Your task to perform on an android device: remove spam from my inbox in the gmail app Image 0: 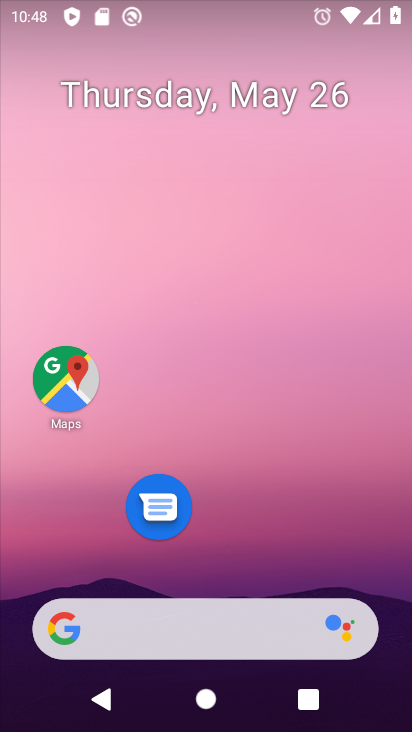
Step 0: drag from (259, 686) to (202, 141)
Your task to perform on an android device: remove spam from my inbox in the gmail app Image 1: 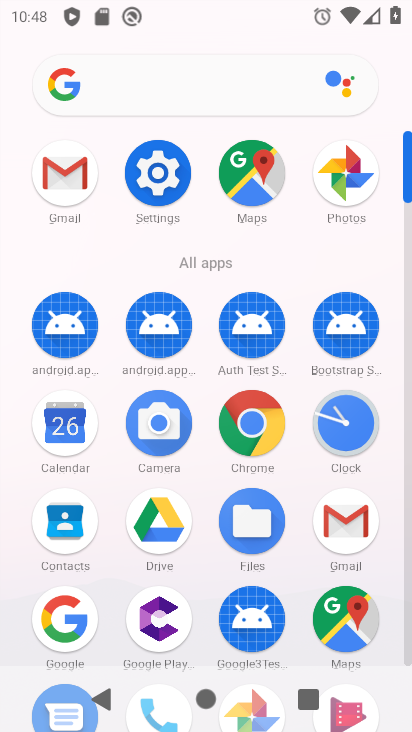
Step 1: click (345, 506)
Your task to perform on an android device: remove spam from my inbox in the gmail app Image 2: 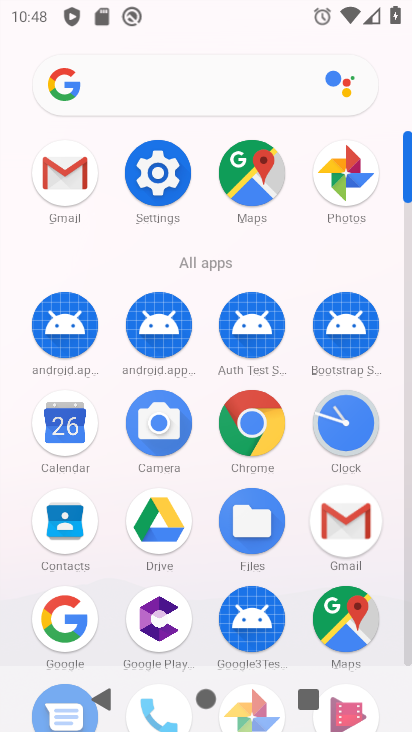
Step 2: click (346, 522)
Your task to perform on an android device: remove spam from my inbox in the gmail app Image 3: 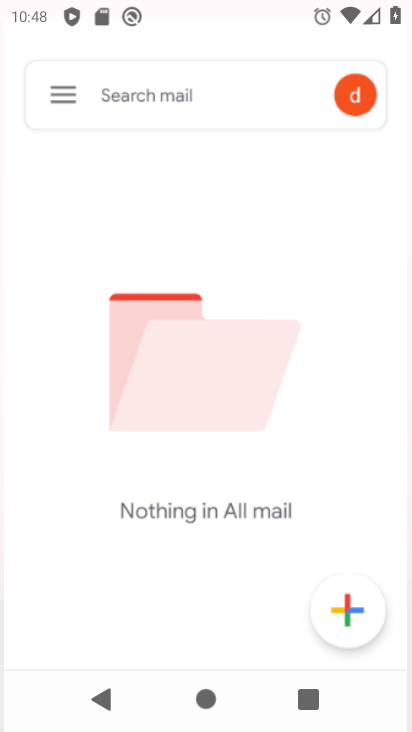
Step 3: click (346, 522)
Your task to perform on an android device: remove spam from my inbox in the gmail app Image 4: 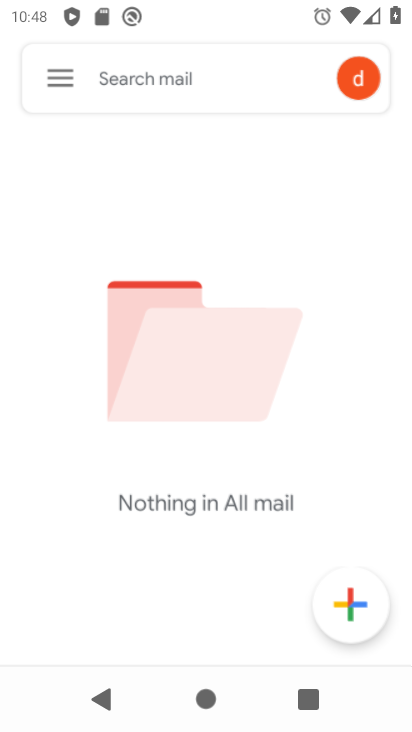
Step 4: click (346, 522)
Your task to perform on an android device: remove spam from my inbox in the gmail app Image 5: 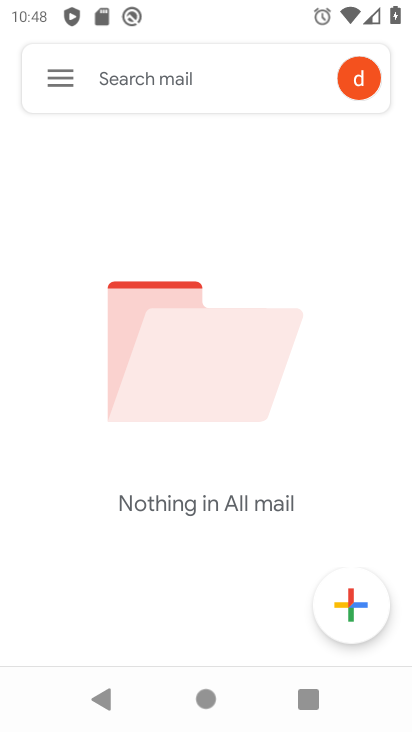
Step 5: press back button
Your task to perform on an android device: remove spam from my inbox in the gmail app Image 6: 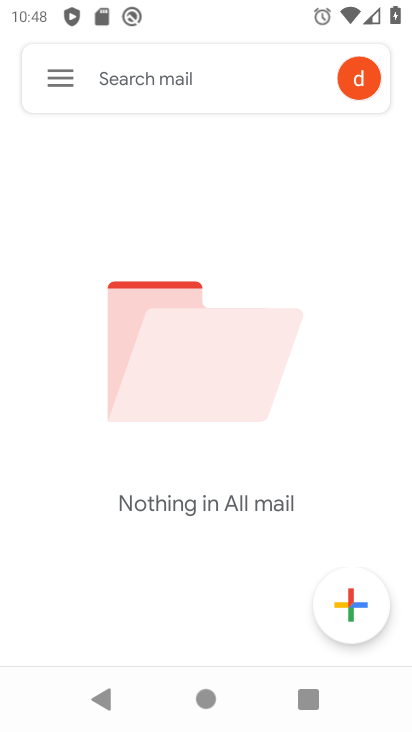
Step 6: press back button
Your task to perform on an android device: remove spam from my inbox in the gmail app Image 7: 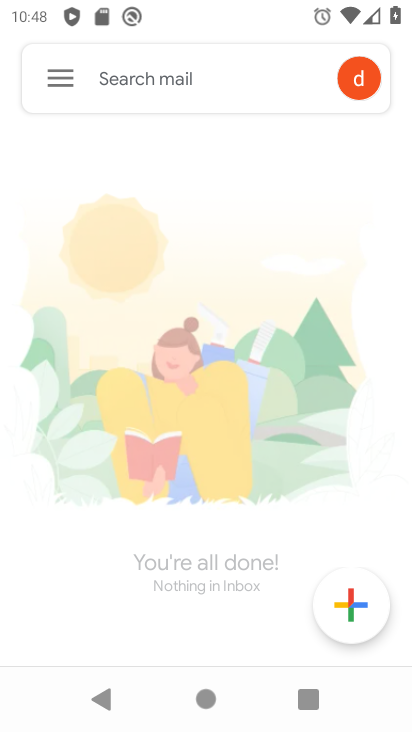
Step 7: press back button
Your task to perform on an android device: remove spam from my inbox in the gmail app Image 8: 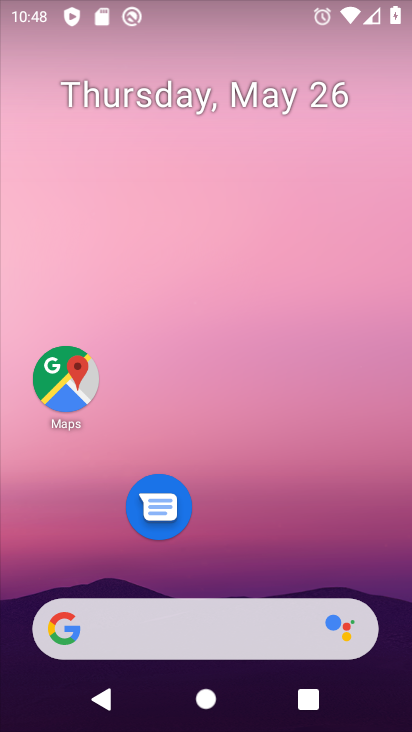
Step 8: drag from (250, 539) to (258, 0)
Your task to perform on an android device: remove spam from my inbox in the gmail app Image 9: 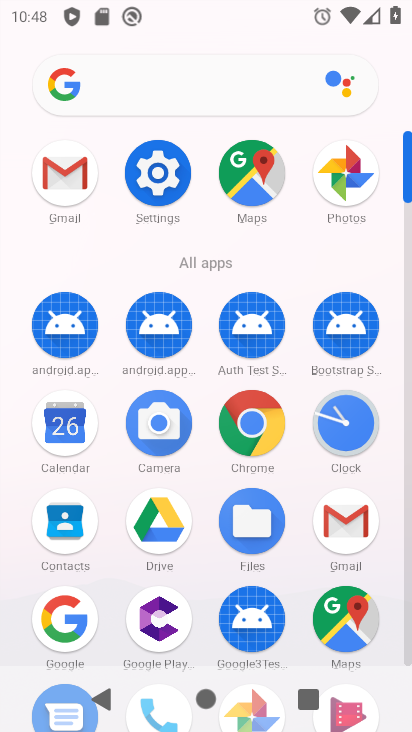
Step 9: click (365, 512)
Your task to perform on an android device: remove spam from my inbox in the gmail app Image 10: 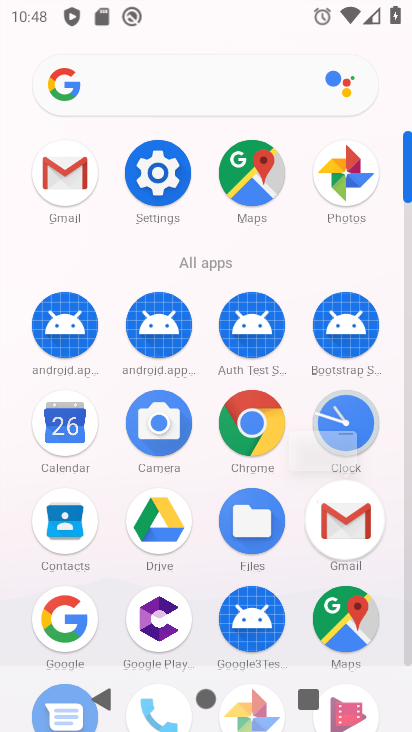
Step 10: click (338, 509)
Your task to perform on an android device: remove spam from my inbox in the gmail app Image 11: 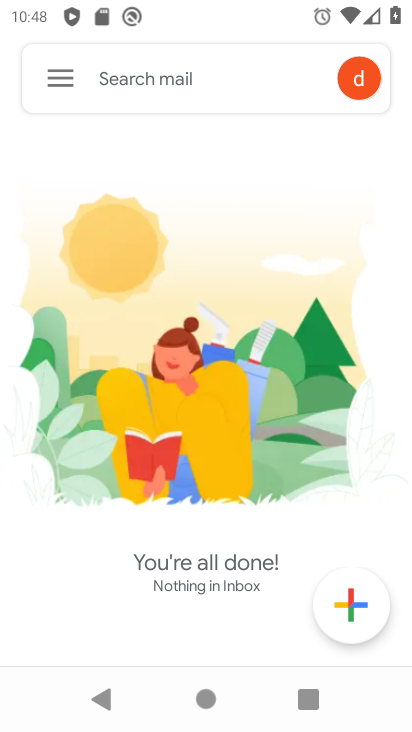
Step 11: click (335, 519)
Your task to perform on an android device: remove spam from my inbox in the gmail app Image 12: 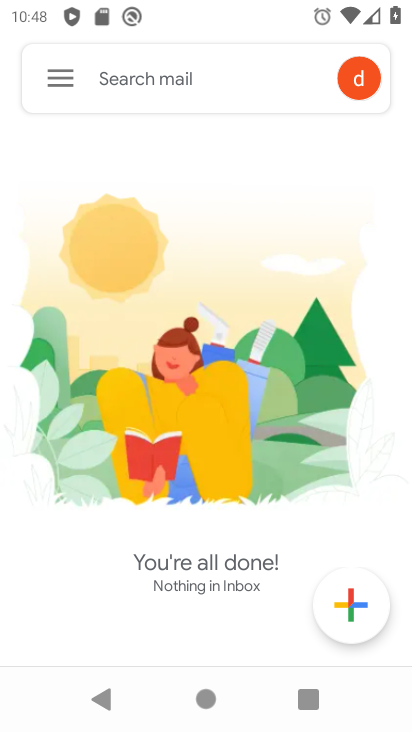
Step 12: click (65, 75)
Your task to perform on an android device: remove spam from my inbox in the gmail app Image 13: 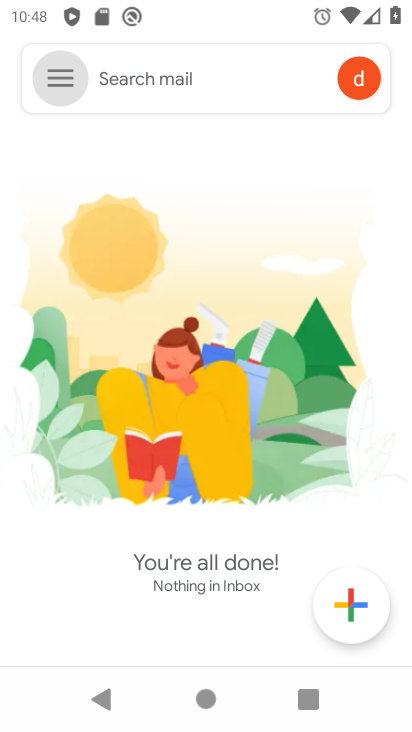
Step 13: click (65, 75)
Your task to perform on an android device: remove spam from my inbox in the gmail app Image 14: 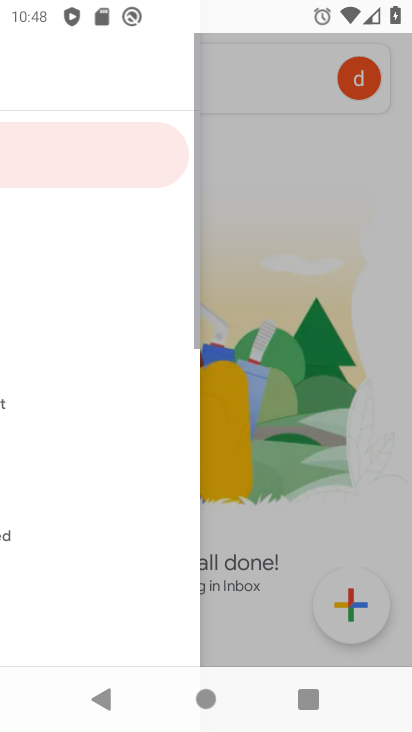
Step 14: click (65, 75)
Your task to perform on an android device: remove spam from my inbox in the gmail app Image 15: 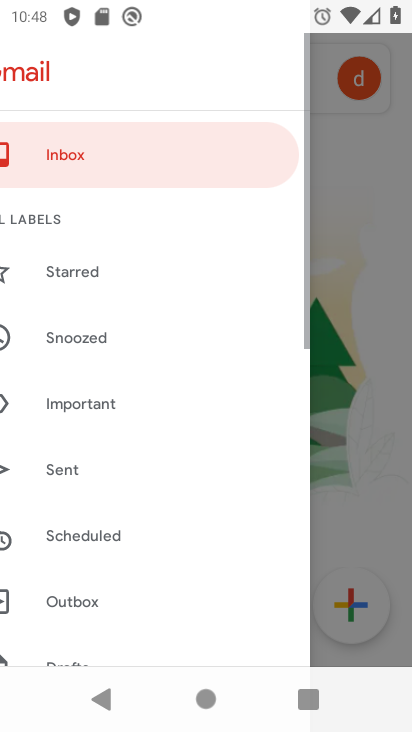
Step 15: click (65, 75)
Your task to perform on an android device: remove spam from my inbox in the gmail app Image 16: 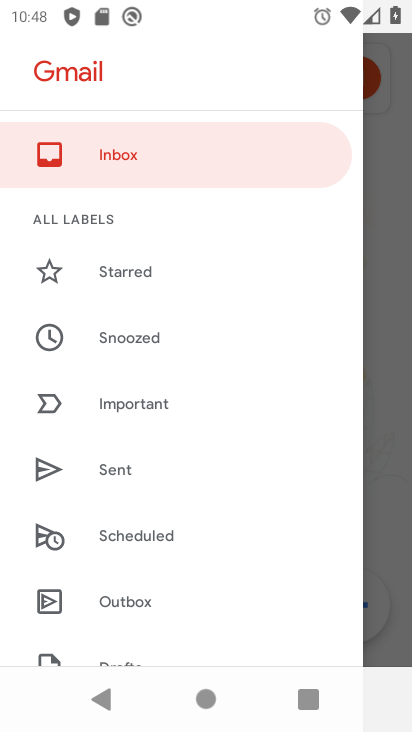
Step 16: drag from (146, 505) to (170, 88)
Your task to perform on an android device: remove spam from my inbox in the gmail app Image 17: 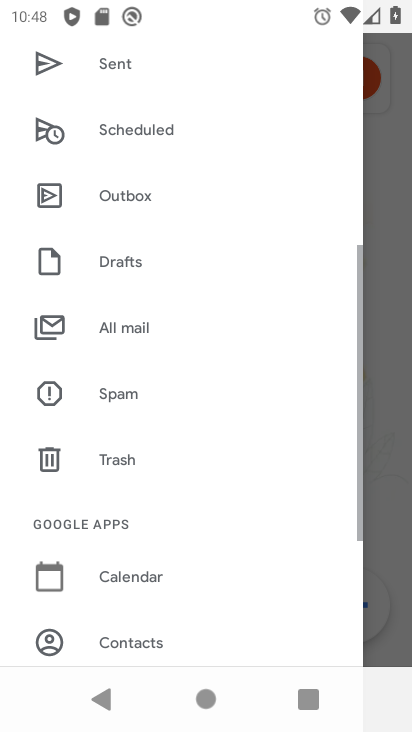
Step 17: drag from (165, 331) to (185, 86)
Your task to perform on an android device: remove spam from my inbox in the gmail app Image 18: 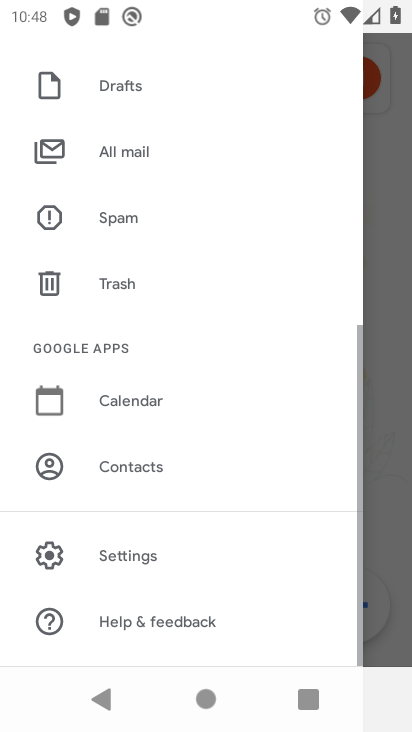
Step 18: drag from (137, 423) to (137, 85)
Your task to perform on an android device: remove spam from my inbox in the gmail app Image 19: 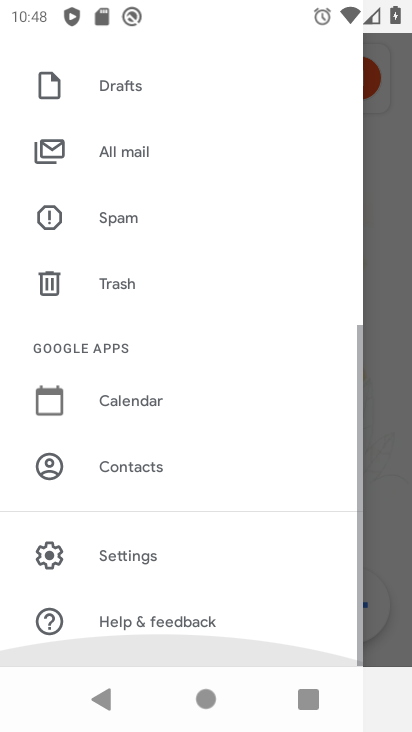
Step 19: drag from (137, 477) to (129, 91)
Your task to perform on an android device: remove spam from my inbox in the gmail app Image 20: 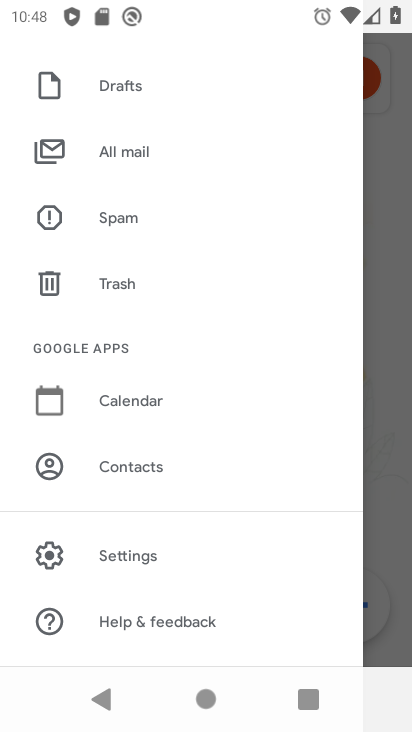
Step 20: click (113, 548)
Your task to perform on an android device: remove spam from my inbox in the gmail app Image 21: 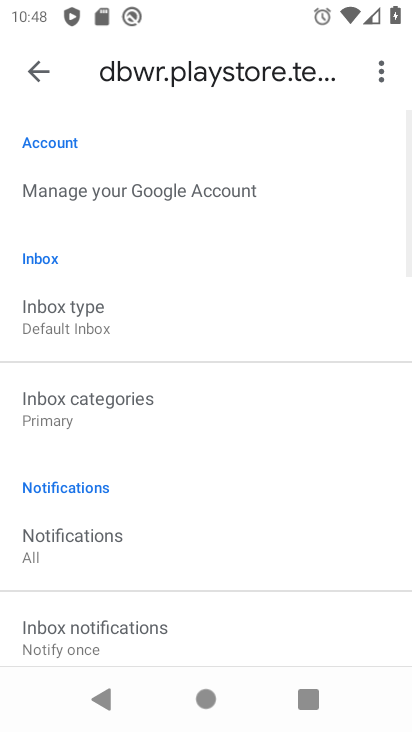
Step 21: press back button
Your task to perform on an android device: remove spam from my inbox in the gmail app Image 22: 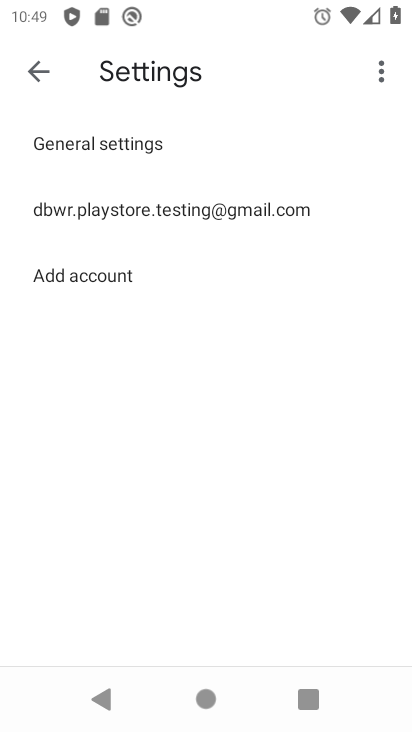
Step 22: click (31, 69)
Your task to perform on an android device: remove spam from my inbox in the gmail app Image 23: 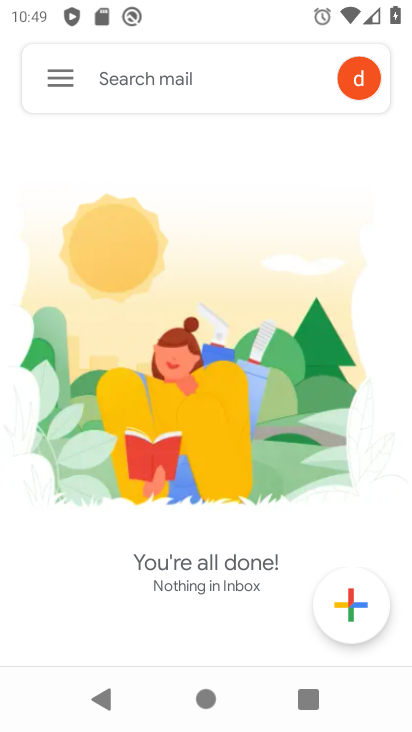
Step 23: click (49, 73)
Your task to perform on an android device: remove spam from my inbox in the gmail app Image 24: 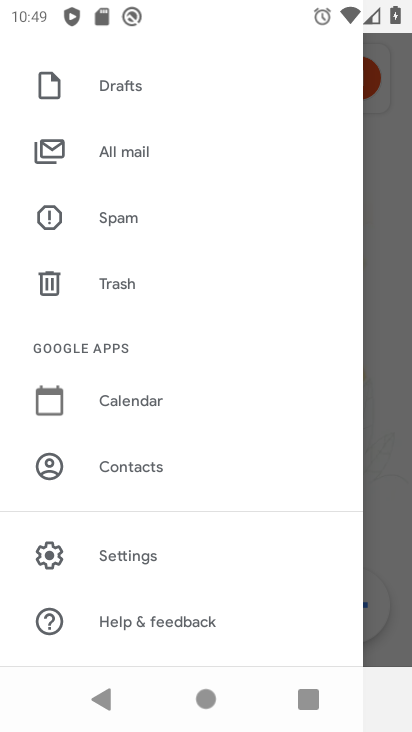
Step 24: click (111, 209)
Your task to perform on an android device: remove spam from my inbox in the gmail app Image 25: 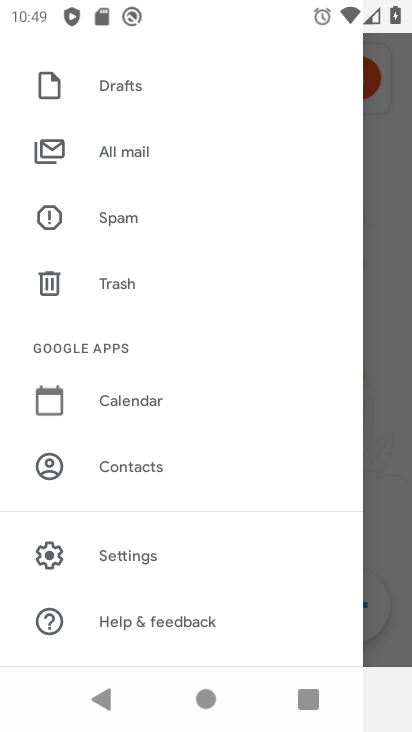
Step 25: click (111, 209)
Your task to perform on an android device: remove spam from my inbox in the gmail app Image 26: 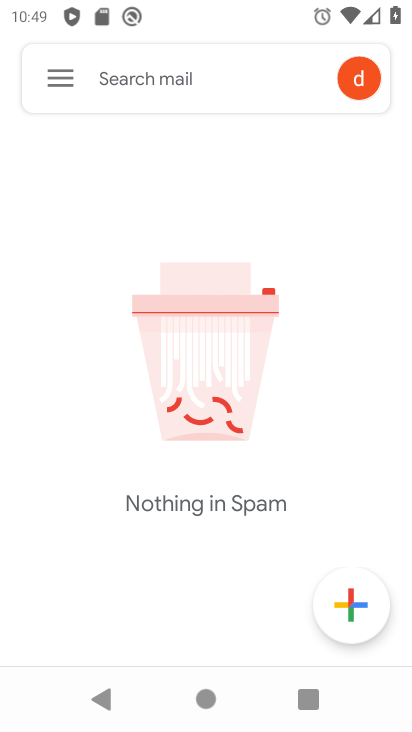
Step 26: task complete